Your task to perform on an android device: Open wifi settings Image 0: 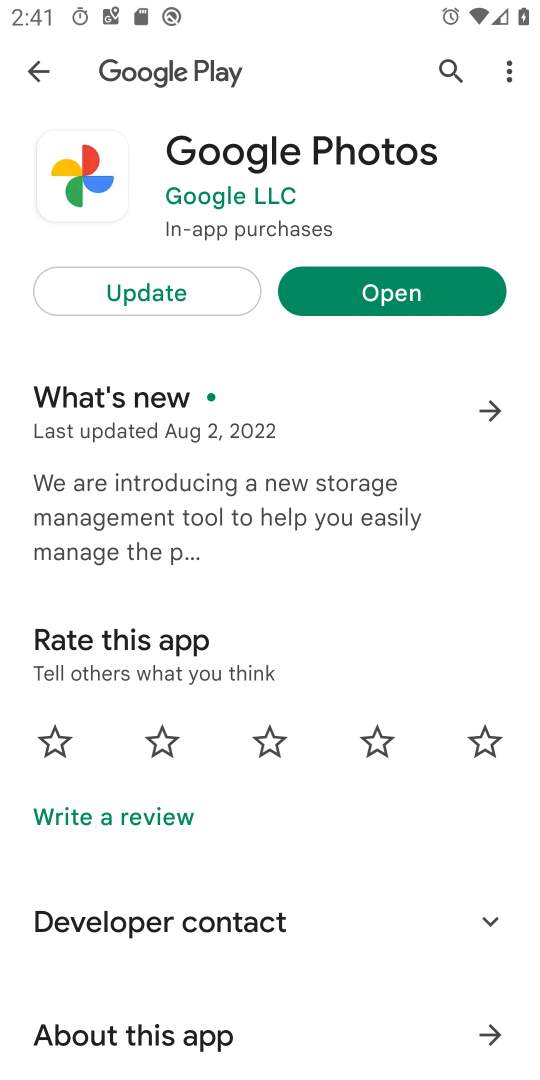
Step 0: press home button
Your task to perform on an android device: Open wifi settings Image 1: 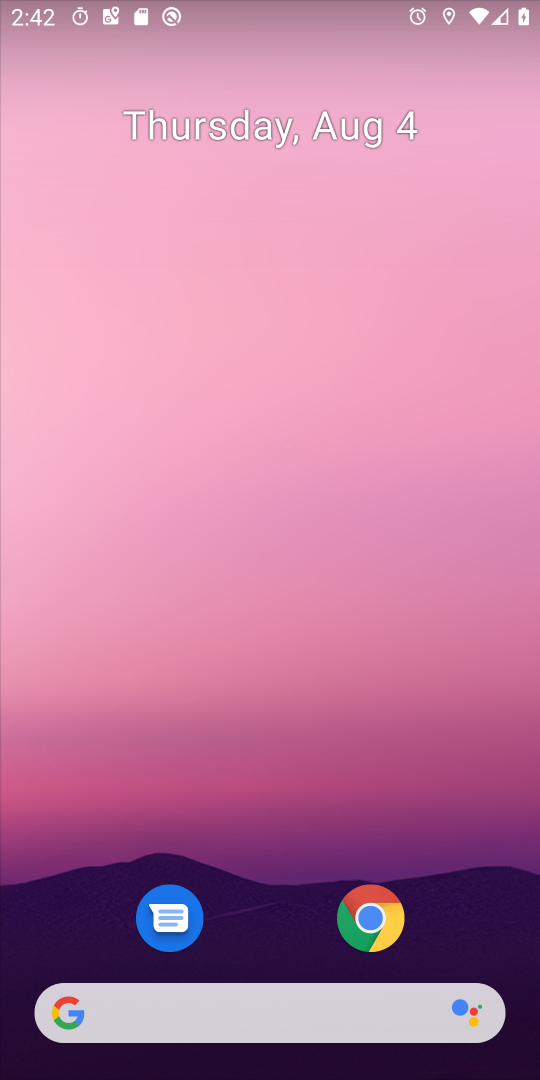
Step 1: drag from (249, 912) to (251, 397)
Your task to perform on an android device: Open wifi settings Image 2: 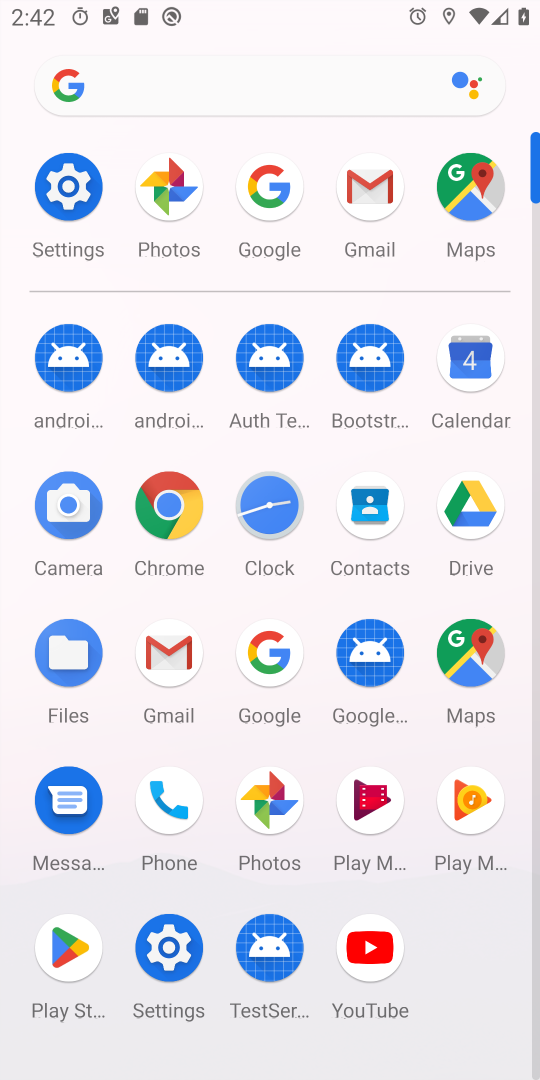
Step 2: click (92, 184)
Your task to perform on an android device: Open wifi settings Image 3: 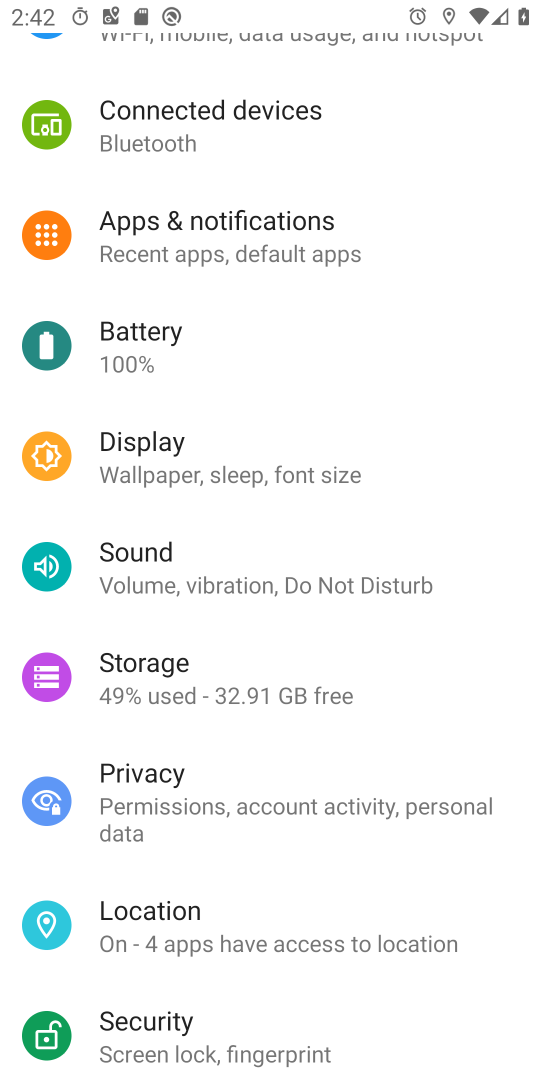
Step 3: drag from (192, 199) to (276, 768)
Your task to perform on an android device: Open wifi settings Image 4: 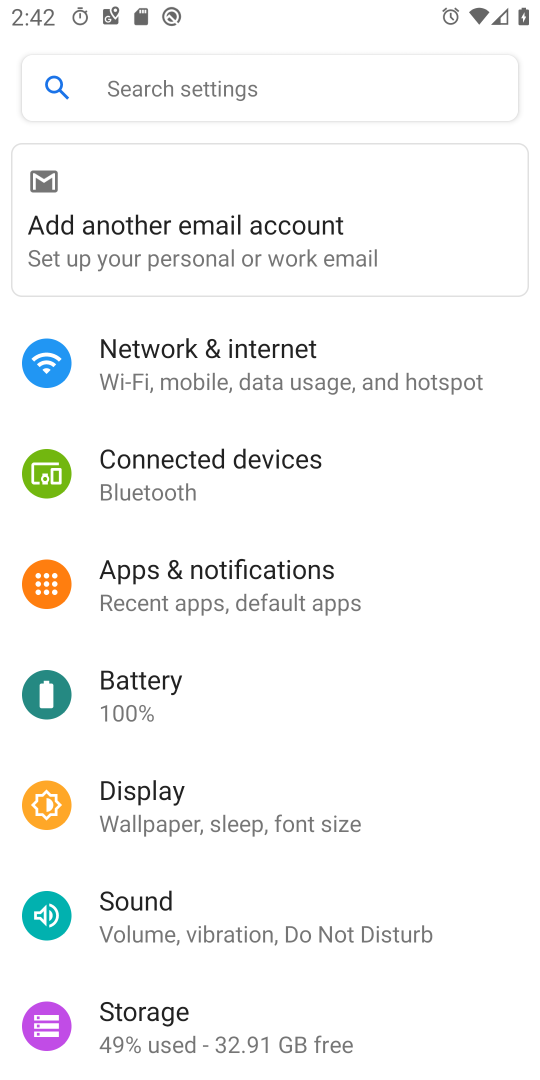
Step 4: click (161, 401)
Your task to perform on an android device: Open wifi settings Image 5: 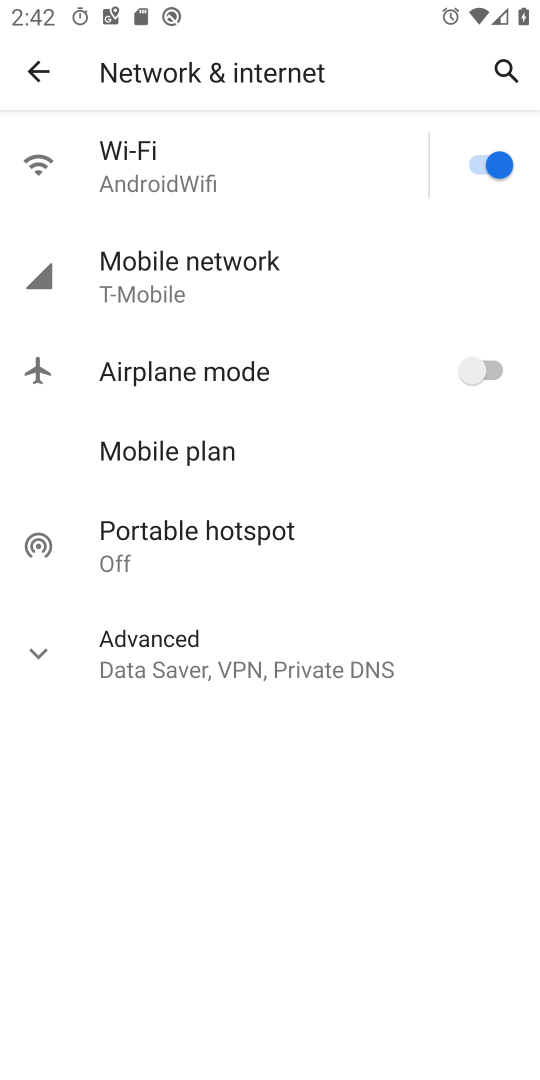
Step 5: click (189, 197)
Your task to perform on an android device: Open wifi settings Image 6: 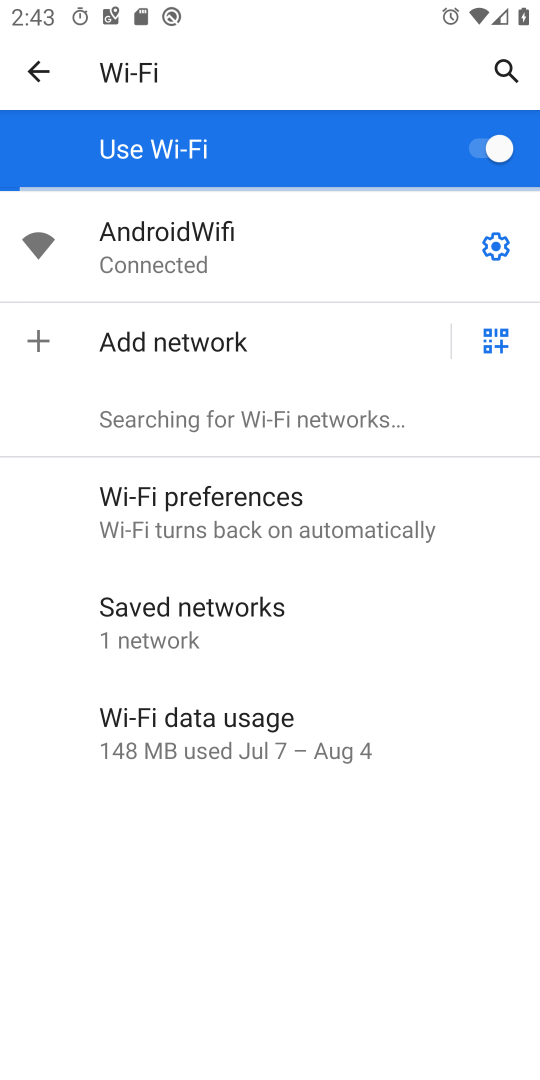
Step 6: task complete